Your task to perform on an android device: Open Wikipedia Image 0: 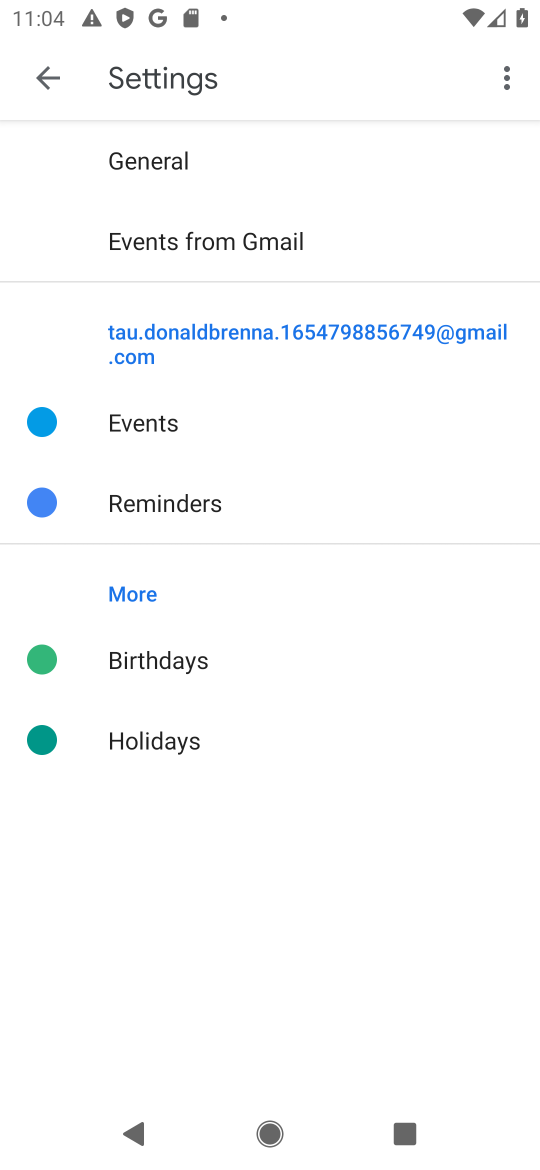
Step 0: press home button
Your task to perform on an android device: Open Wikipedia Image 1: 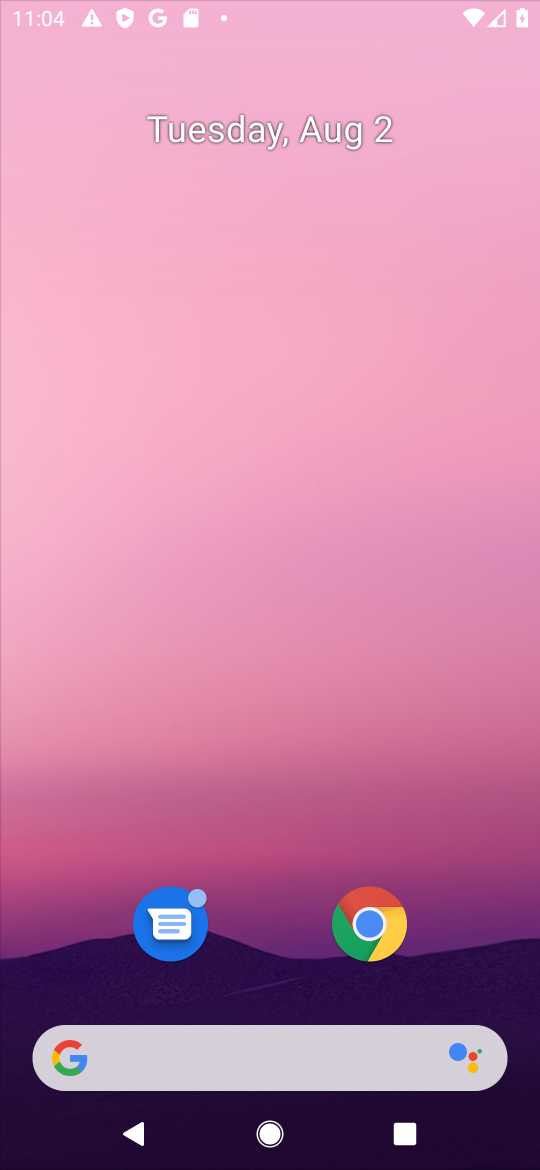
Step 1: drag from (290, 1017) to (274, 333)
Your task to perform on an android device: Open Wikipedia Image 2: 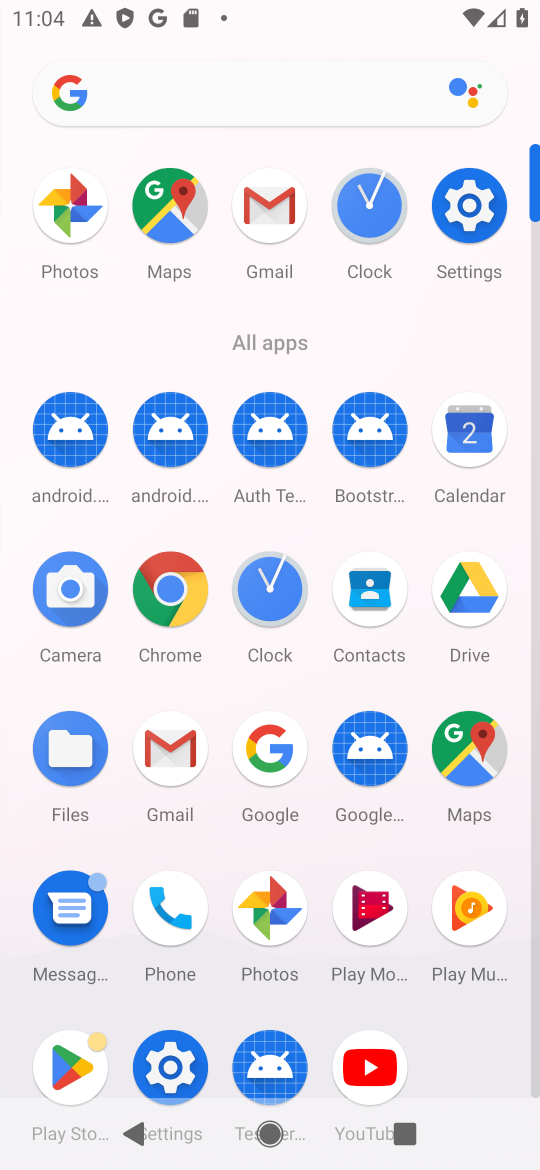
Step 2: click (177, 593)
Your task to perform on an android device: Open Wikipedia Image 3: 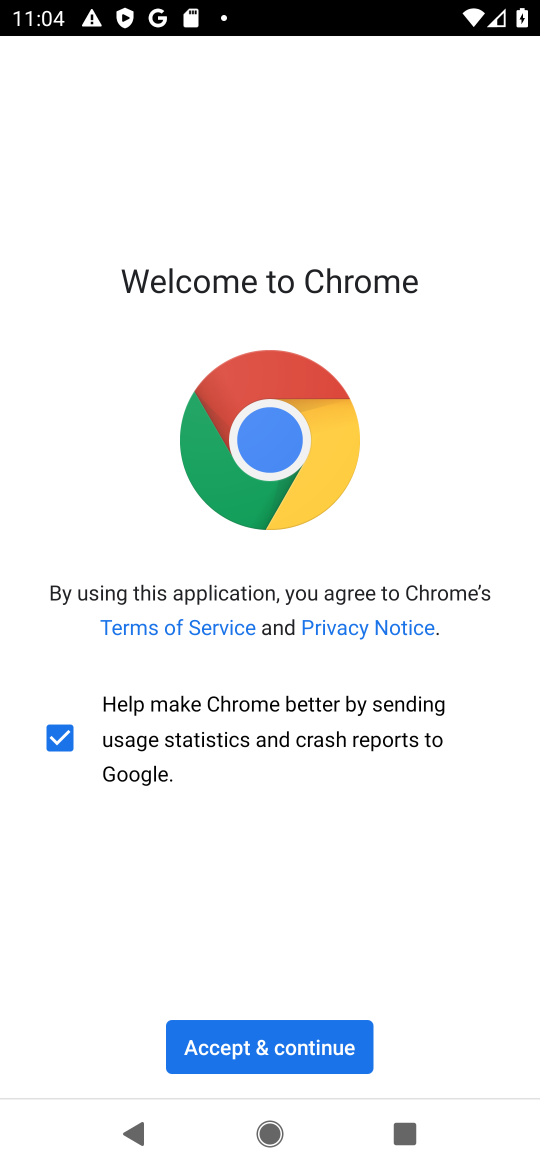
Step 3: click (291, 1034)
Your task to perform on an android device: Open Wikipedia Image 4: 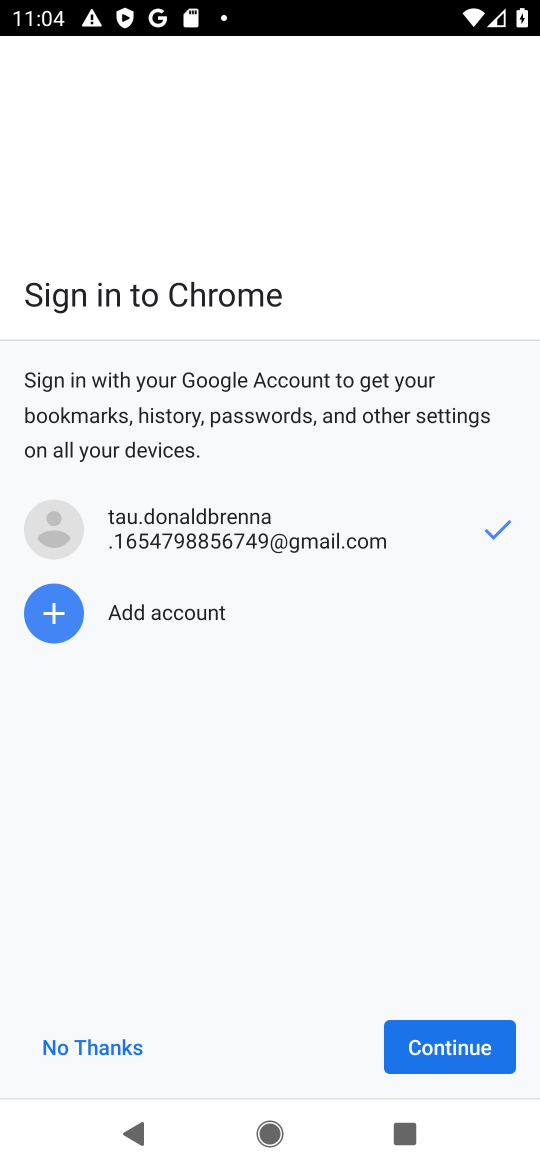
Step 4: click (454, 1040)
Your task to perform on an android device: Open Wikipedia Image 5: 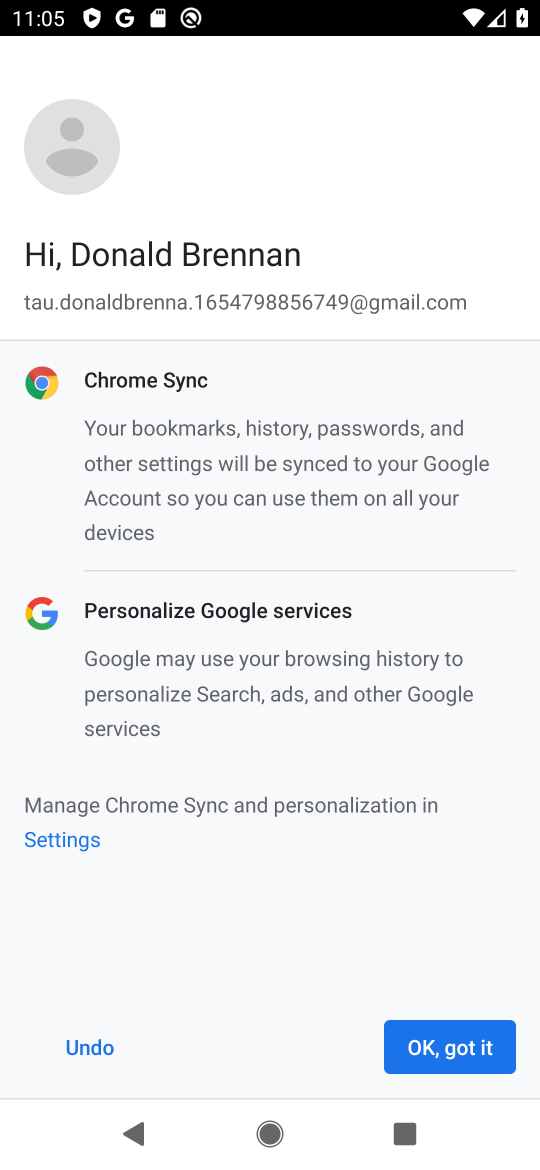
Step 5: click (459, 1031)
Your task to perform on an android device: Open Wikipedia Image 6: 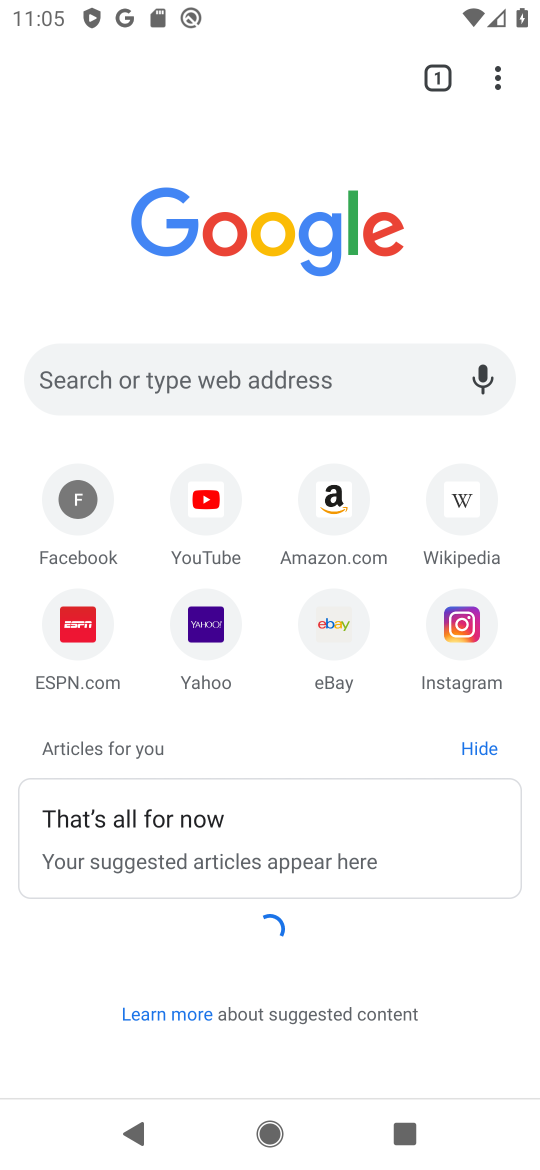
Step 6: click (470, 494)
Your task to perform on an android device: Open Wikipedia Image 7: 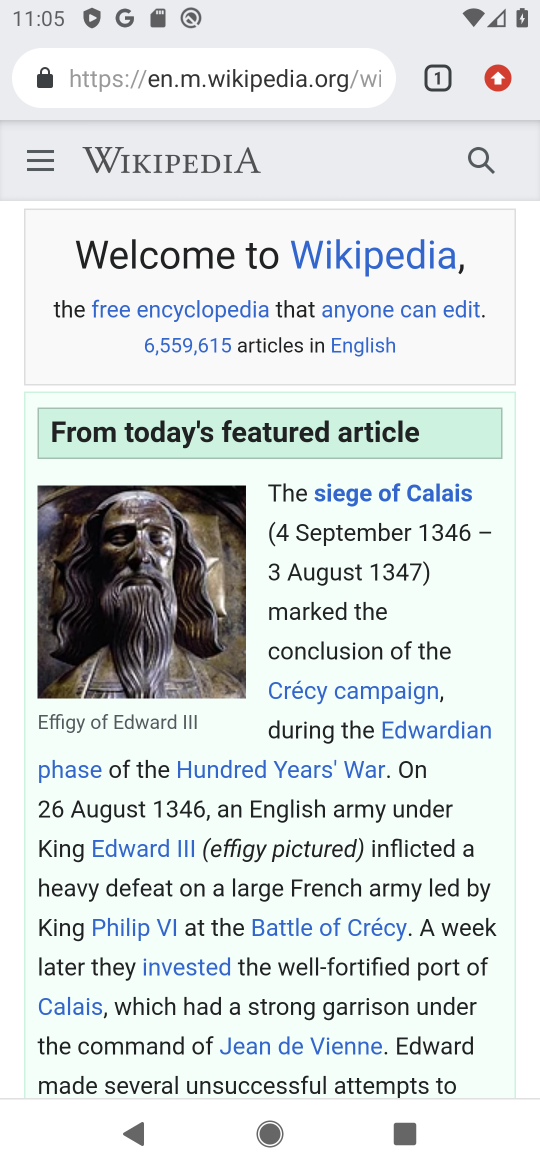
Step 7: task complete